Your task to perform on an android device: Open calendar and show me the fourth week of next month Image 0: 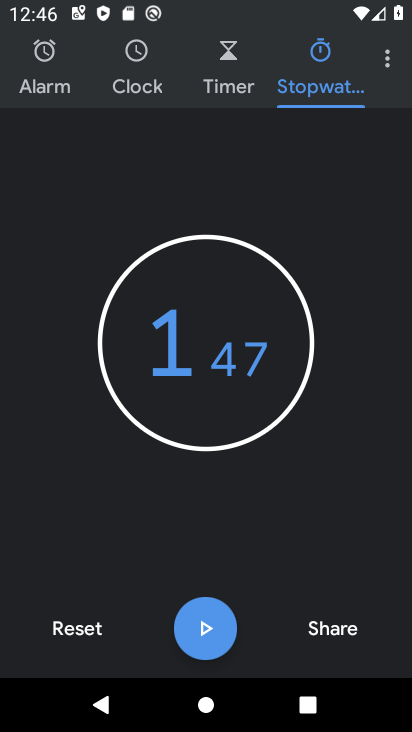
Step 0: press home button
Your task to perform on an android device: Open calendar and show me the fourth week of next month Image 1: 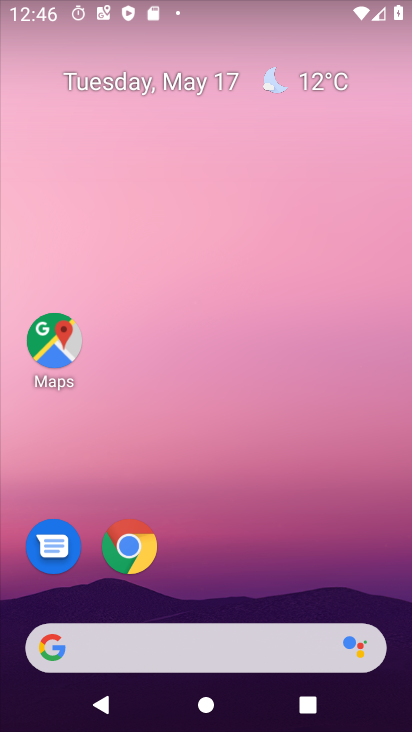
Step 1: drag from (145, 650) to (272, 140)
Your task to perform on an android device: Open calendar and show me the fourth week of next month Image 2: 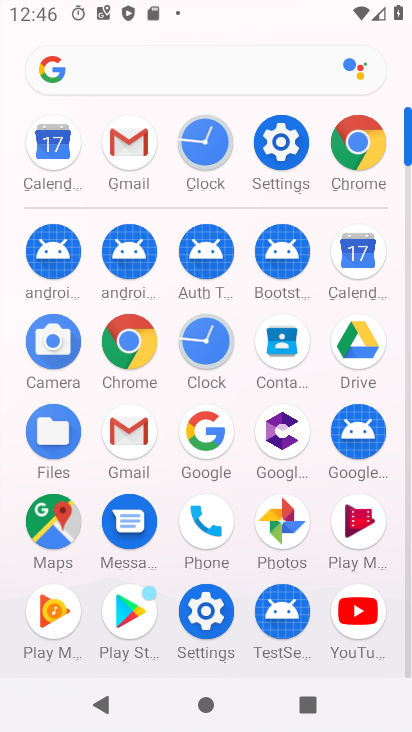
Step 2: click (349, 256)
Your task to perform on an android device: Open calendar and show me the fourth week of next month Image 3: 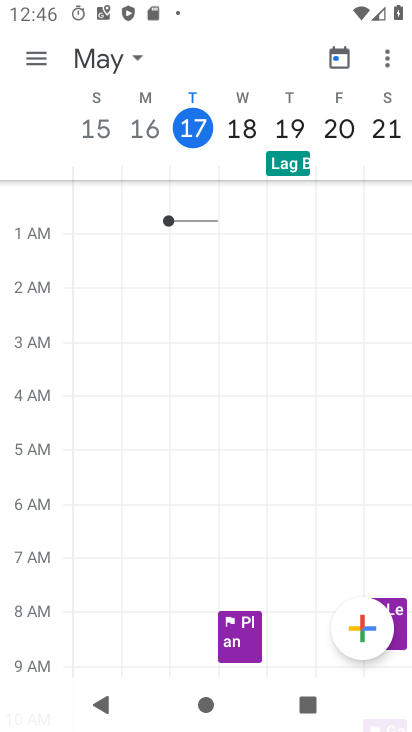
Step 3: click (102, 55)
Your task to perform on an android device: Open calendar and show me the fourth week of next month Image 4: 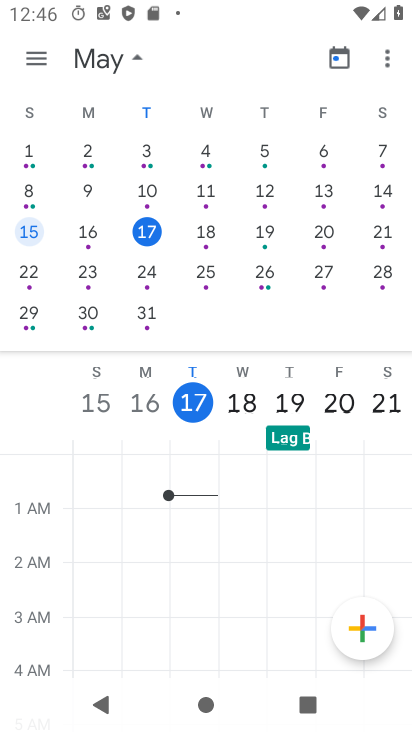
Step 4: drag from (349, 238) to (0, 242)
Your task to perform on an android device: Open calendar and show me the fourth week of next month Image 5: 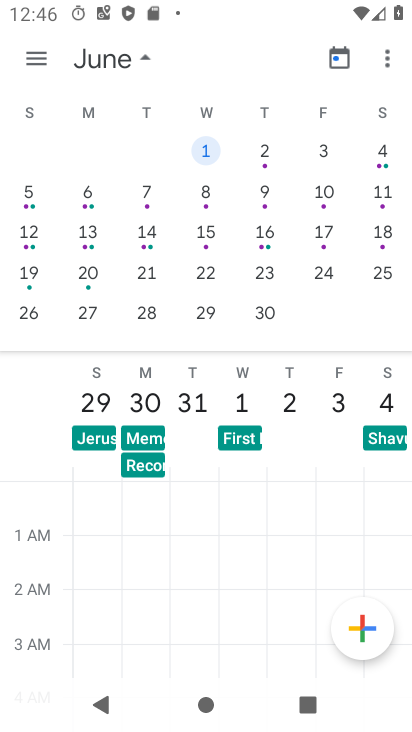
Step 5: click (32, 276)
Your task to perform on an android device: Open calendar and show me the fourth week of next month Image 6: 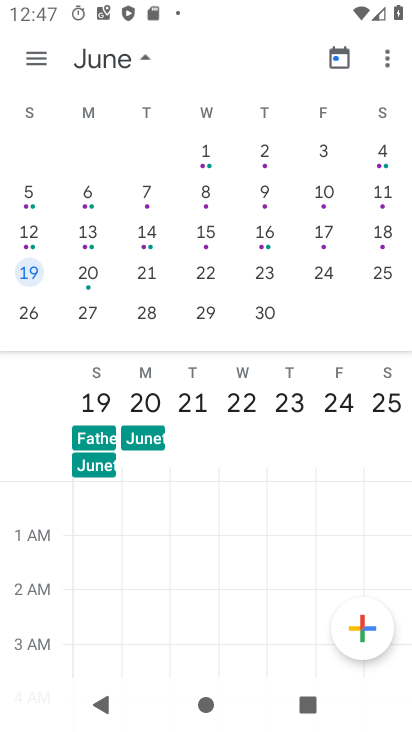
Step 6: click (38, 61)
Your task to perform on an android device: Open calendar and show me the fourth week of next month Image 7: 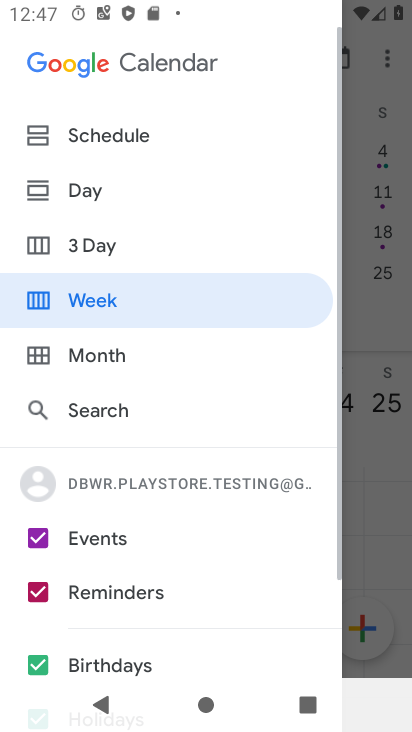
Step 7: click (87, 304)
Your task to perform on an android device: Open calendar and show me the fourth week of next month Image 8: 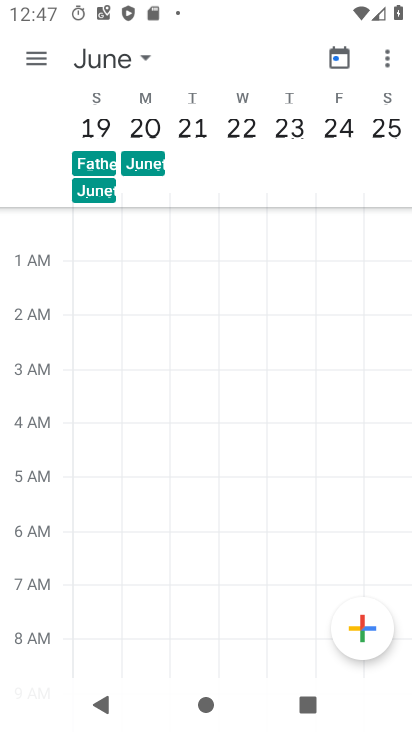
Step 8: task complete